Your task to perform on an android device: Go to Google maps Image 0: 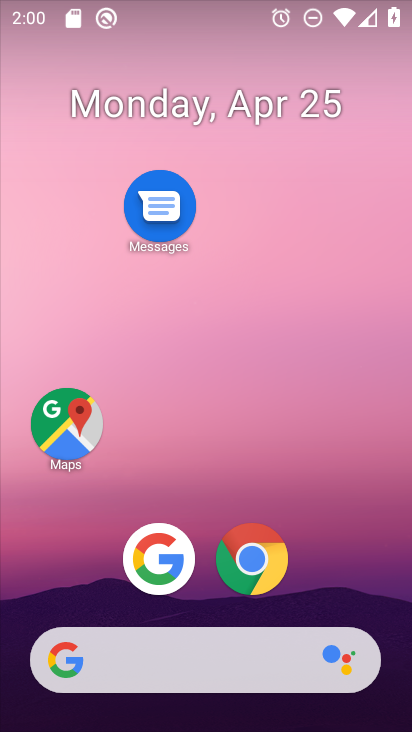
Step 0: click (78, 436)
Your task to perform on an android device: Go to Google maps Image 1: 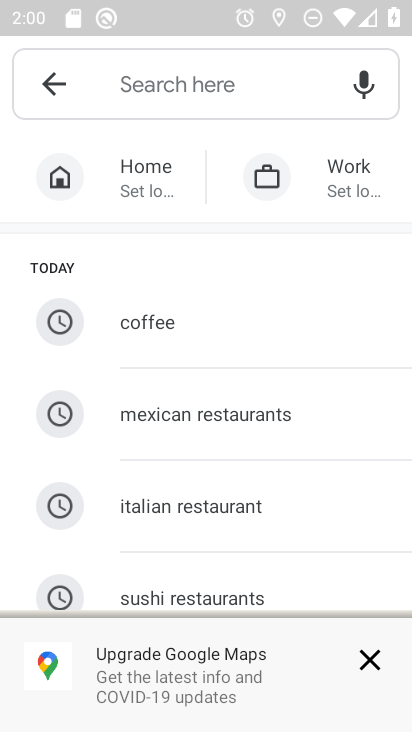
Step 1: task complete